Your task to perform on an android device: Search for "amazon basics triple a" on bestbuy, select the first entry, and add it to the cart. Image 0: 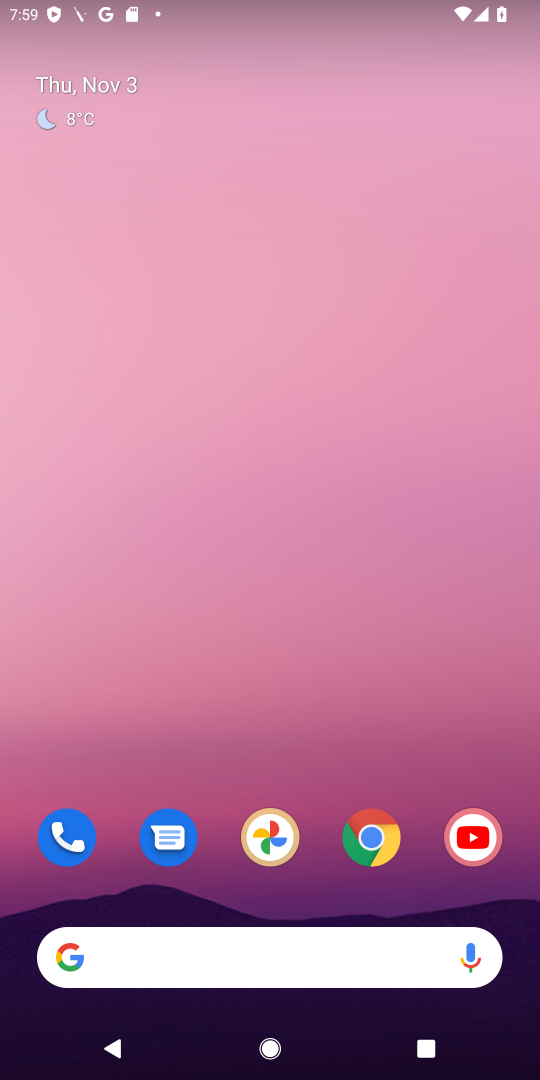
Step 0: click (378, 846)
Your task to perform on an android device: Search for "amazon basics triple a" on bestbuy, select the first entry, and add it to the cart. Image 1: 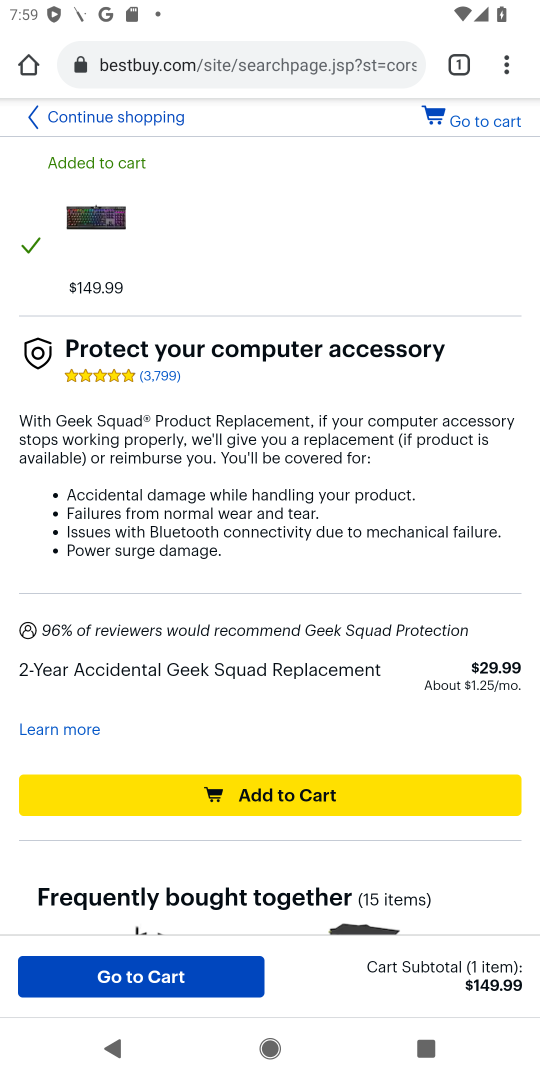
Step 1: click (239, 61)
Your task to perform on an android device: Search for "amazon basics triple a" on bestbuy, select the first entry, and add it to the cart. Image 2: 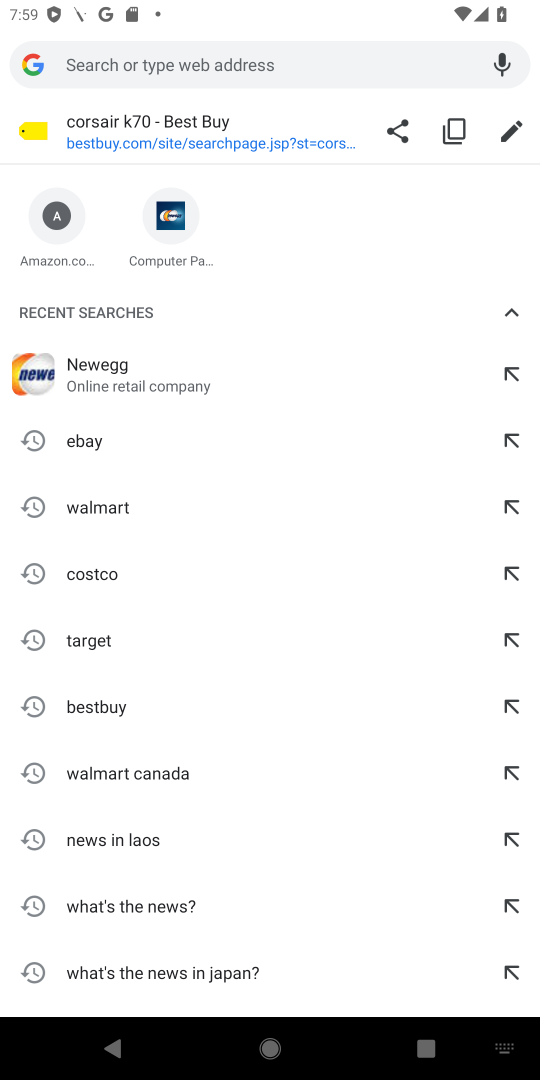
Step 2: click (99, 703)
Your task to perform on an android device: Search for "amazon basics triple a" on bestbuy, select the first entry, and add it to the cart. Image 3: 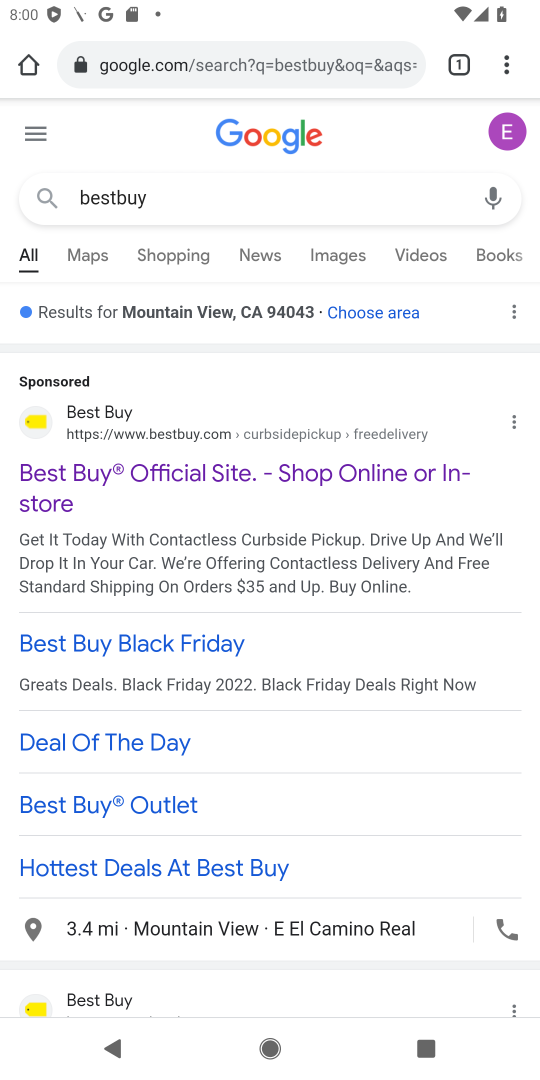
Step 3: click (212, 467)
Your task to perform on an android device: Search for "amazon basics triple a" on bestbuy, select the first entry, and add it to the cart. Image 4: 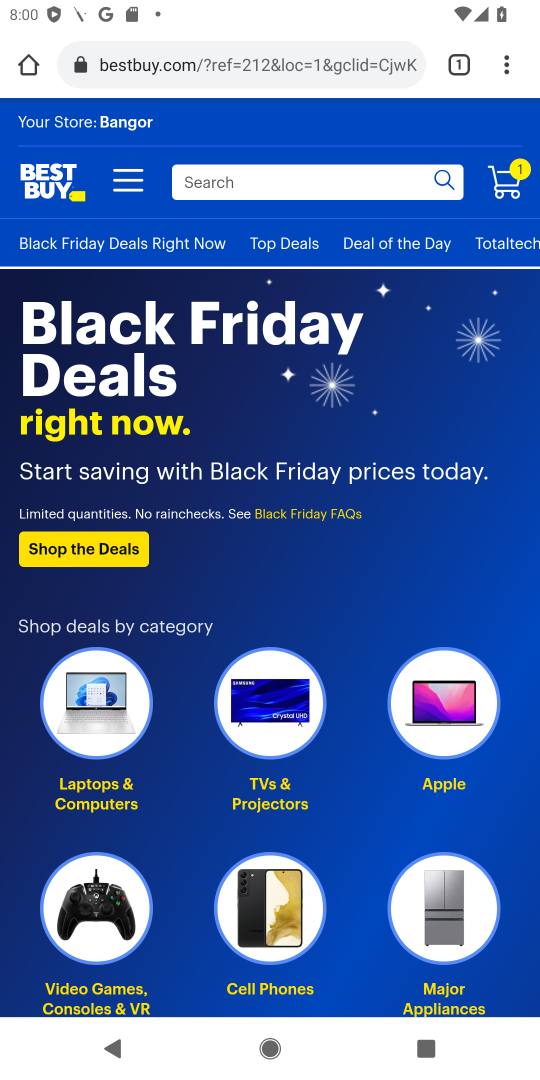
Step 4: click (330, 184)
Your task to perform on an android device: Search for "amazon basics triple a" on bestbuy, select the first entry, and add it to the cart. Image 5: 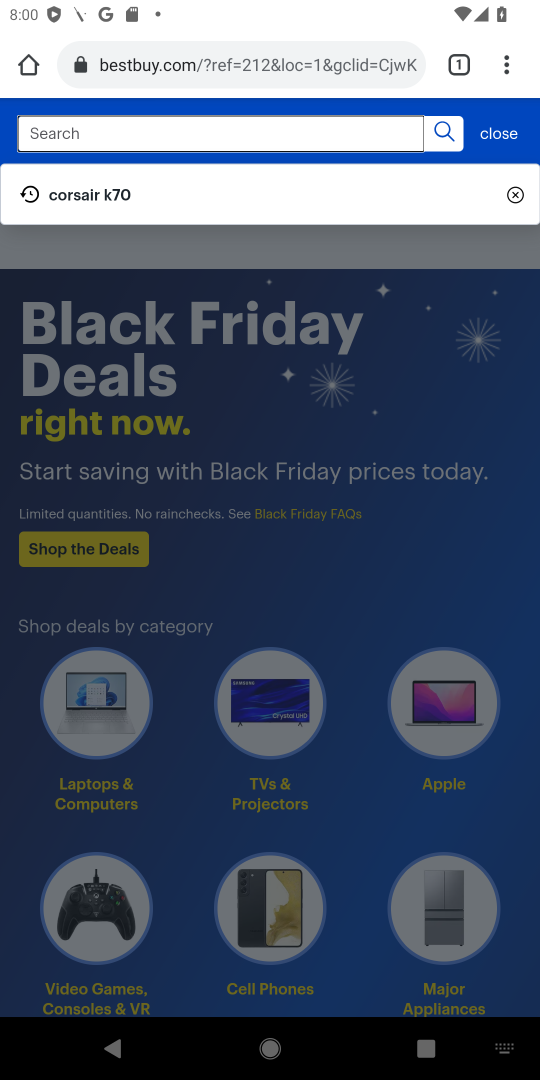
Step 5: type "amazon basics triple a"
Your task to perform on an android device: Search for "amazon basics triple a" on bestbuy, select the first entry, and add it to the cart. Image 6: 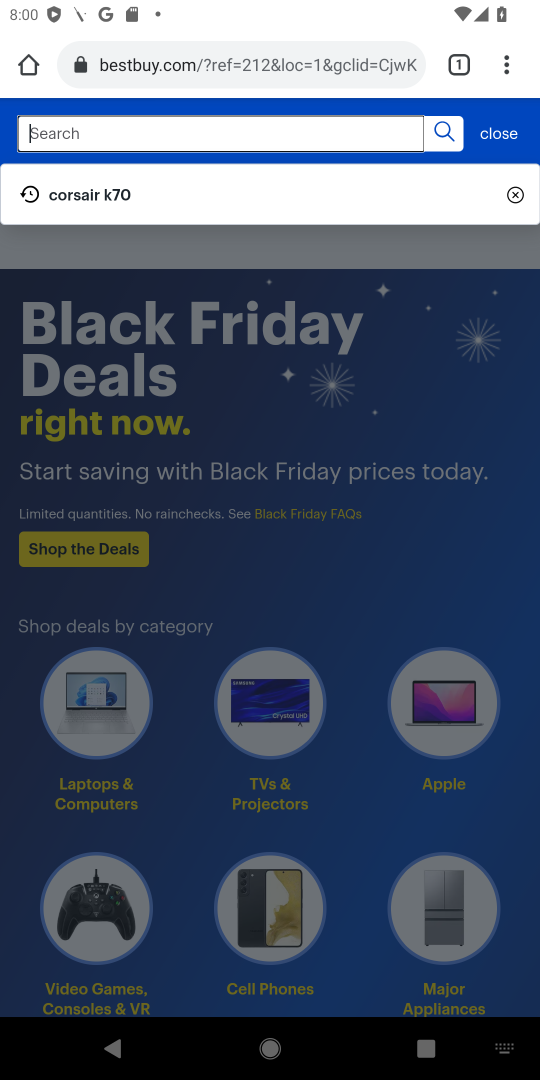
Step 6: press enter
Your task to perform on an android device: Search for "amazon basics triple a" on bestbuy, select the first entry, and add it to the cart. Image 7: 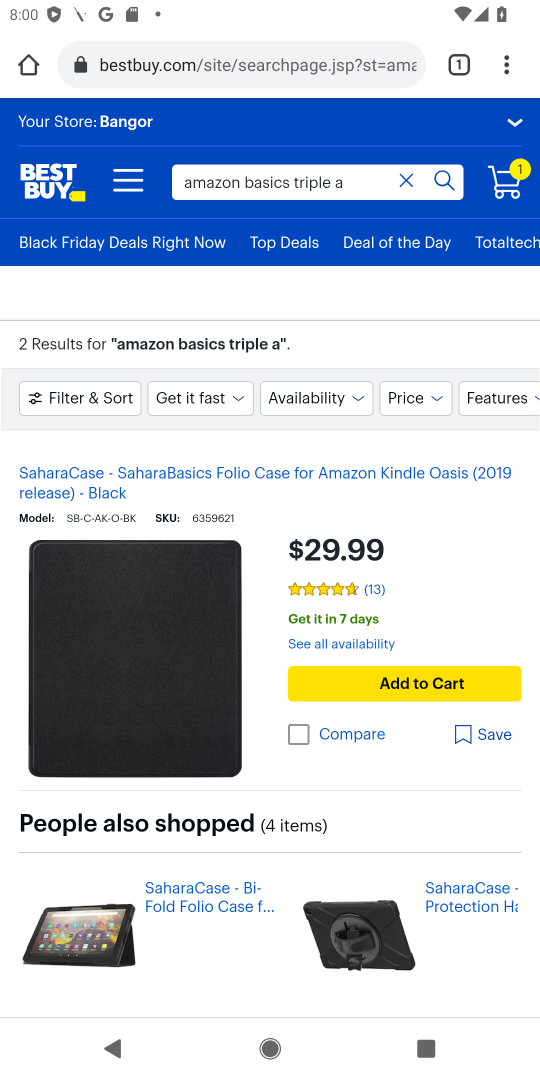
Step 7: task complete